Your task to perform on an android device: Open location settings Image 0: 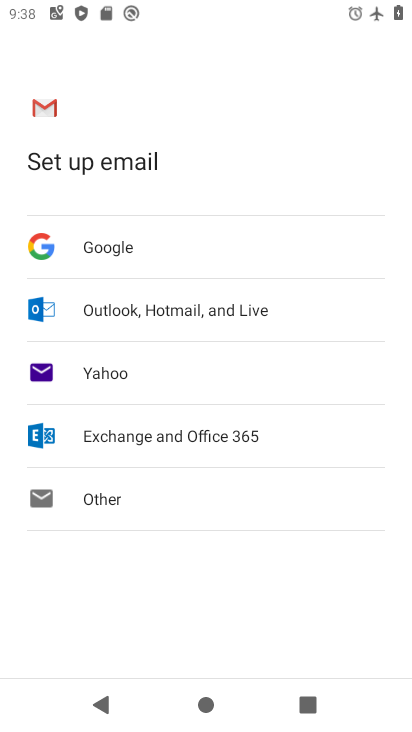
Step 0: press home button
Your task to perform on an android device: Open location settings Image 1: 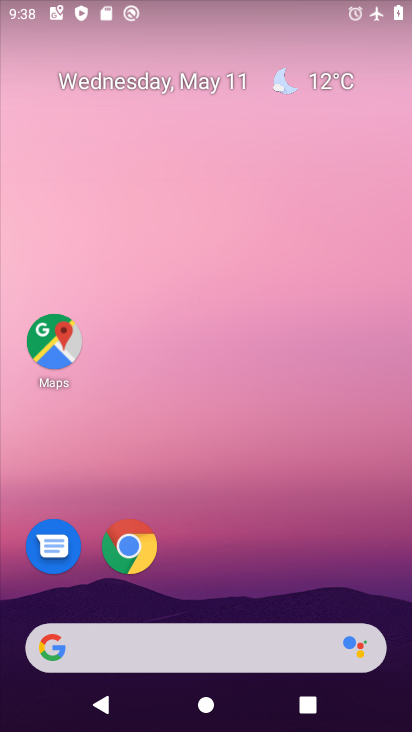
Step 1: drag from (400, 634) to (309, 148)
Your task to perform on an android device: Open location settings Image 2: 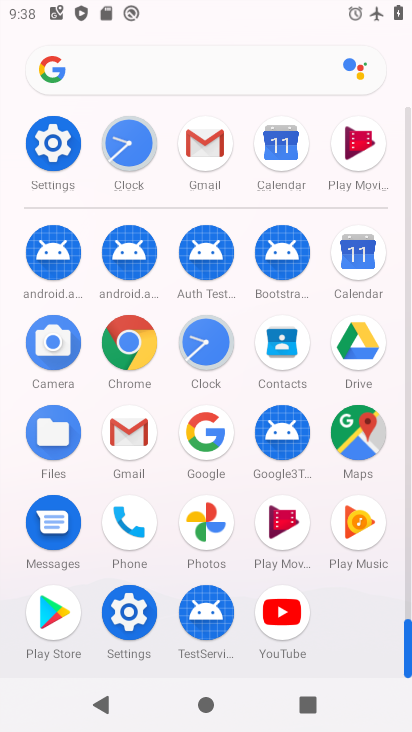
Step 2: click (127, 607)
Your task to perform on an android device: Open location settings Image 3: 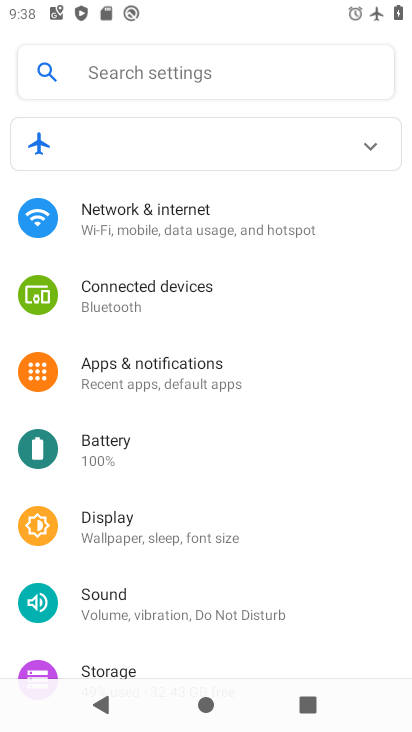
Step 3: drag from (357, 617) to (334, 162)
Your task to perform on an android device: Open location settings Image 4: 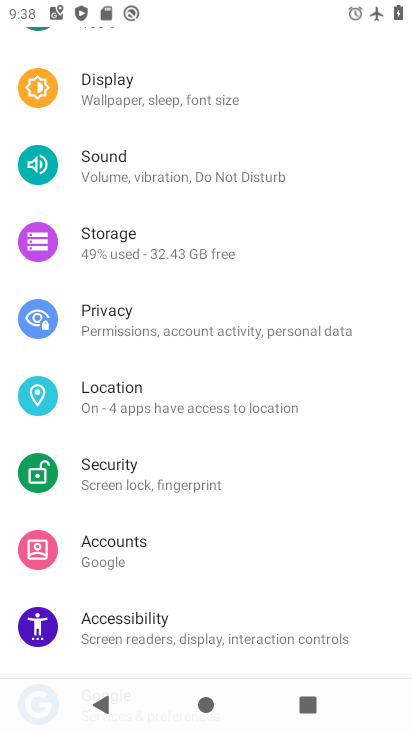
Step 4: click (88, 391)
Your task to perform on an android device: Open location settings Image 5: 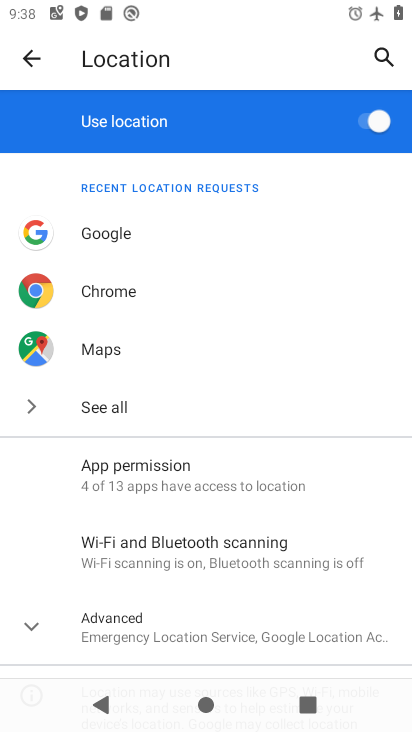
Step 5: click (28, 629)
Your task to perform on an android device: Open location settings Image 6: 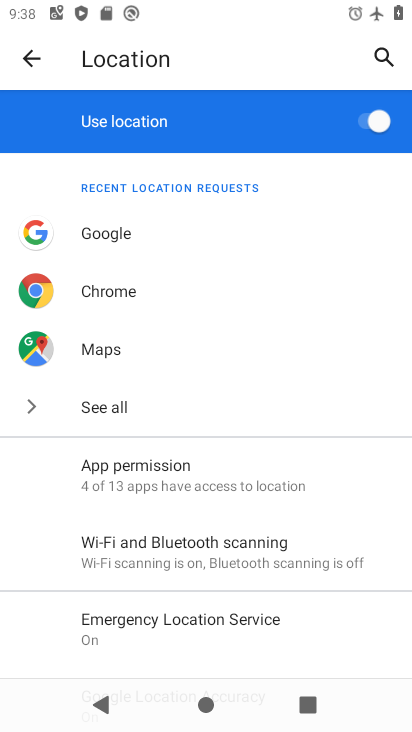
Step 6: task complete